Your task to perform on an android device: toggle improve location accuracy Image 0: 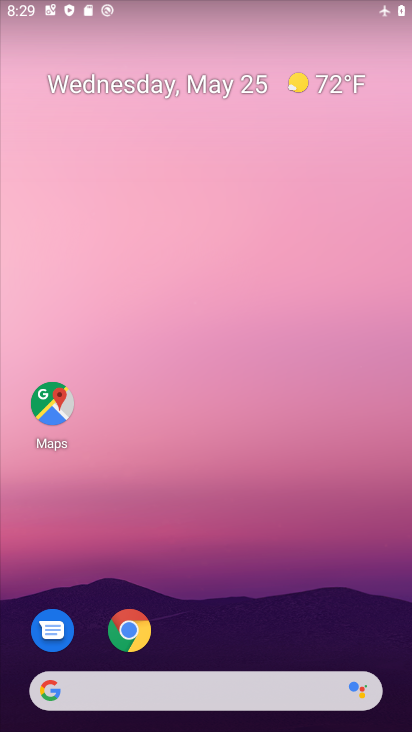
Step 0: drag from (236, 636) to (243, 204)
Your task to perform on an android device: toggle improve location accuracy Image 1: 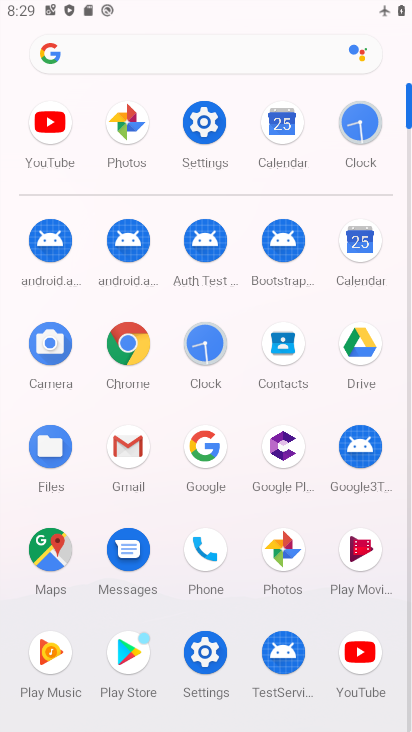
Step 1: click (203, 117)
Your task to perform on an android device: toggle improve location accuracy Image 2: 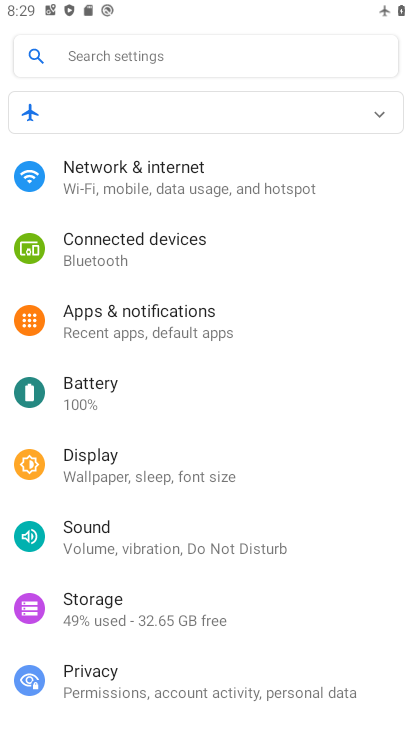
Step 2: drag from (192, 589) to (232, 309)
Your task to perform on an android device: toggle improve location accuracy Image 3: 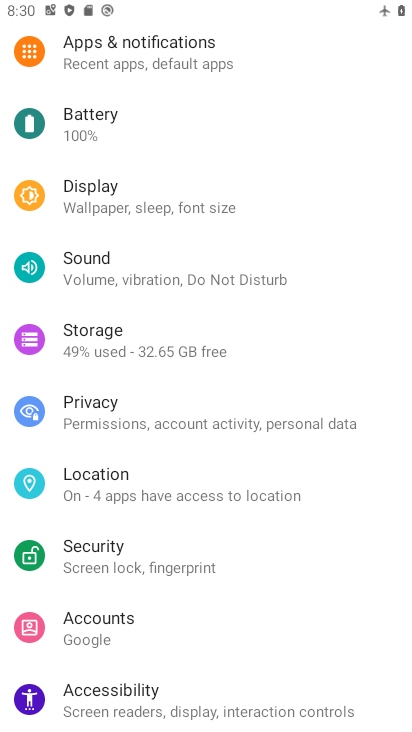
Step 3: click (149, 487)
Your task to perform on an android device: toggle improve location accuracy Image 4: 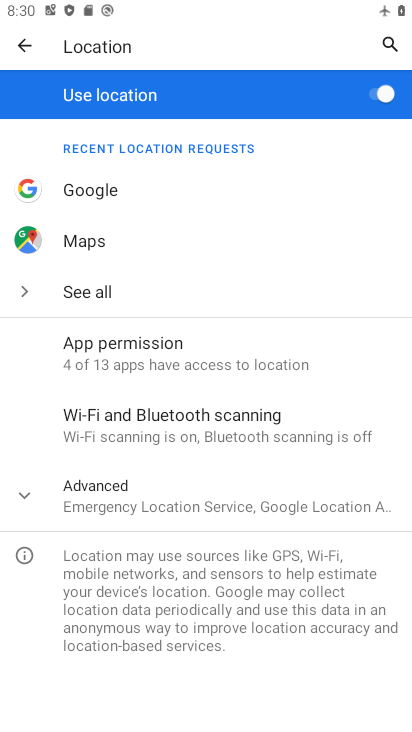
Step 4: click (242, 497)
Your task to perform on an android device: toggle improve location accuracy Image 5: 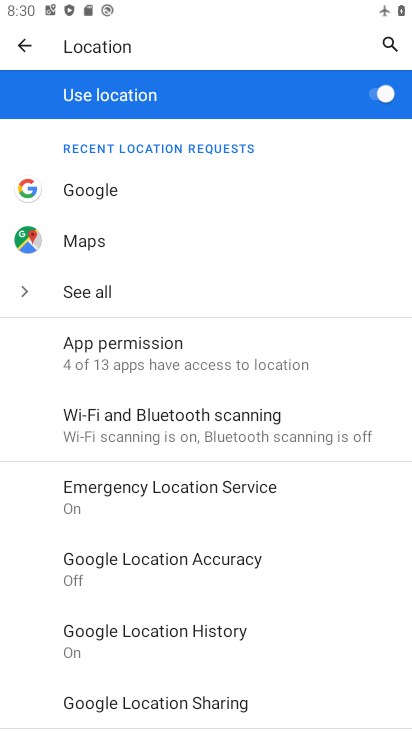
Step 5: drag from (203, 686) to (236, 569)
Your task to perform on an android device: toggle improve location accuracy Image 6: 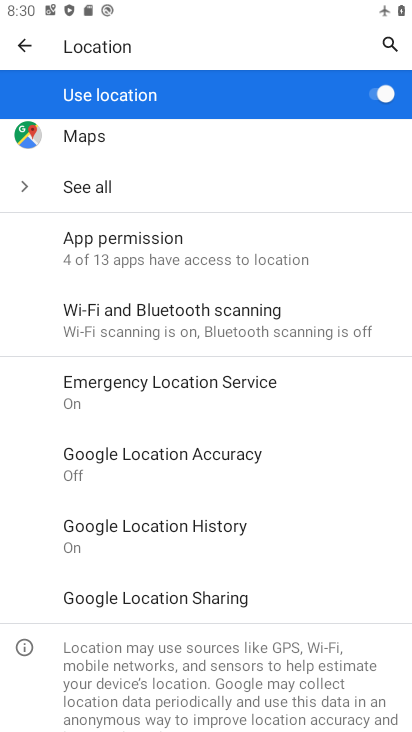
Step 6: click (227, 465)
Your task to perform on an android device: toggle improve location accuracy Image 7: 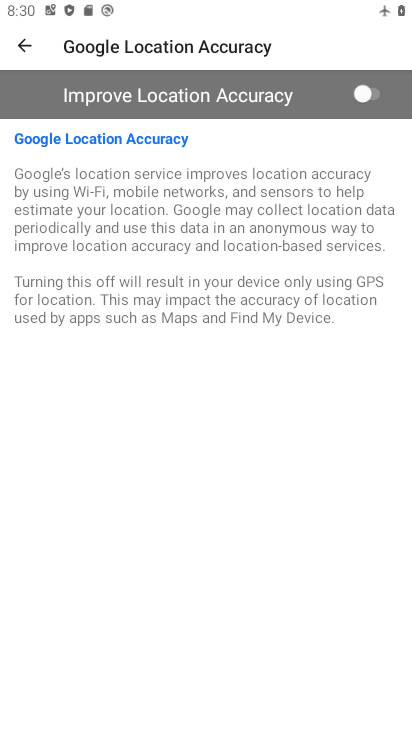
Step 7: click (376, 85)
Your task to perform on an android device: toggle improve location accuracy Image 8: 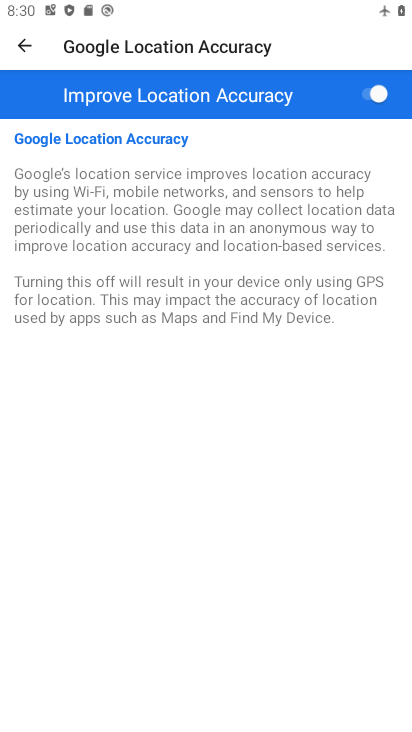
Step 8: task complete